Your task to perform on an android device: Open the calendar app, open the side menu, and click the "Day" option Image 0: 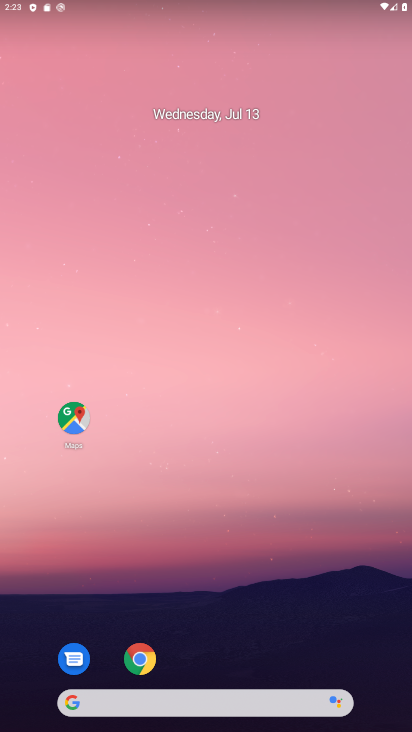
Step 0: drag from (207, 661) to (209, 50)
Your task to perform on an android device: Open the calendar app, open the side menu, and click the "Day" option Image 1: 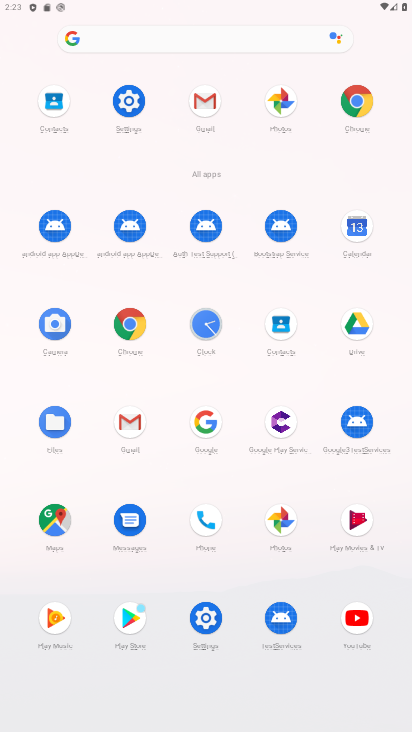
Step 1: click (354, 222)
Your task to perform on an android device: Open the calendar app, open the side menu, and click the "Day" option Image 2: 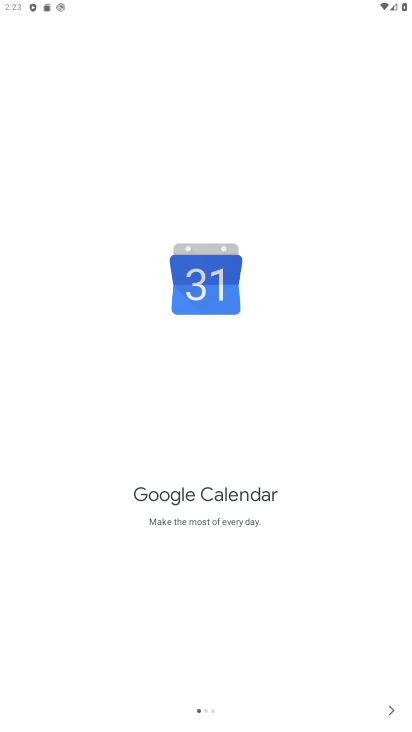
Step 2: click (389, 708)
Your task to perform on an android device: Open the calendar app, open the side menu, and click the "Day" option Image 3: 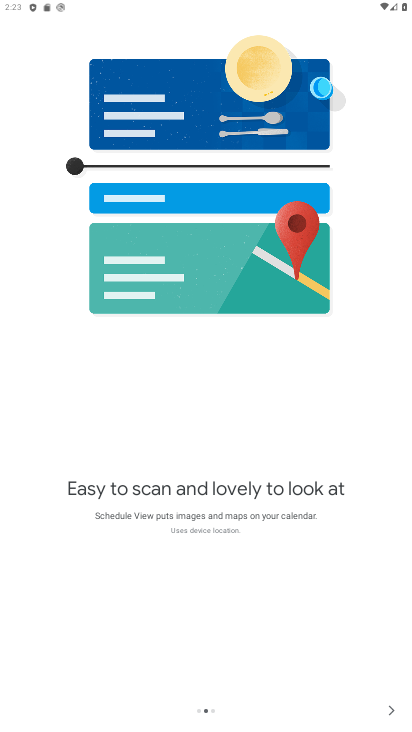
Step 3: click (389, 708)
Your task to perform on an android device: Open the calendar app, open the side menu, and click the "Day" option Image 4: 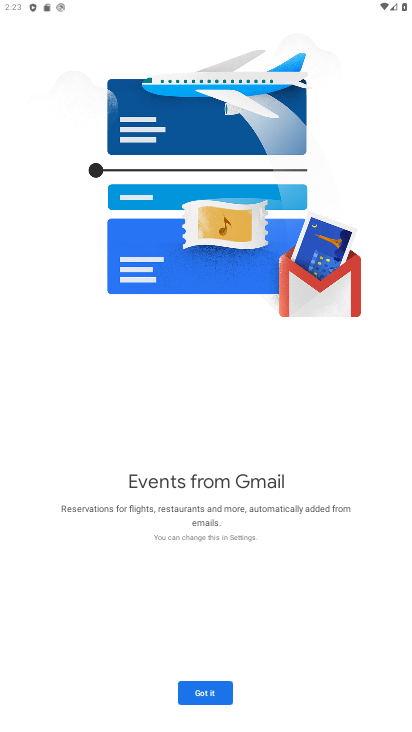
Step 4: click (206, 686)
Your task to perform on an android device: Open the calendar app, open the side menu, and click the "Day" option Image 5: 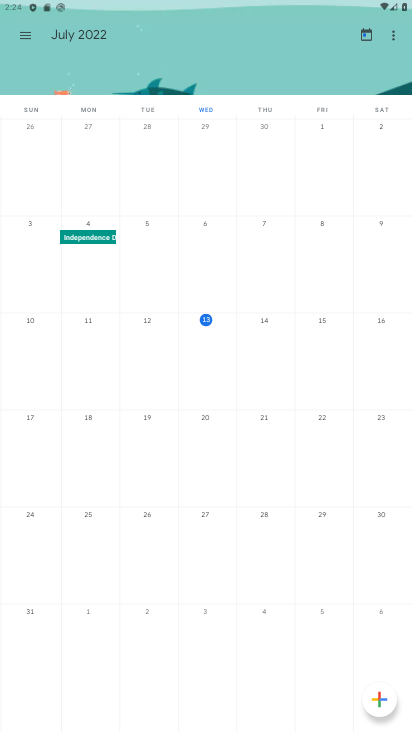
Step 5: click (27, 28)
Your task to perform on an android device: Open the calendar app, open the side menu, and click the "Day" option Image 6: 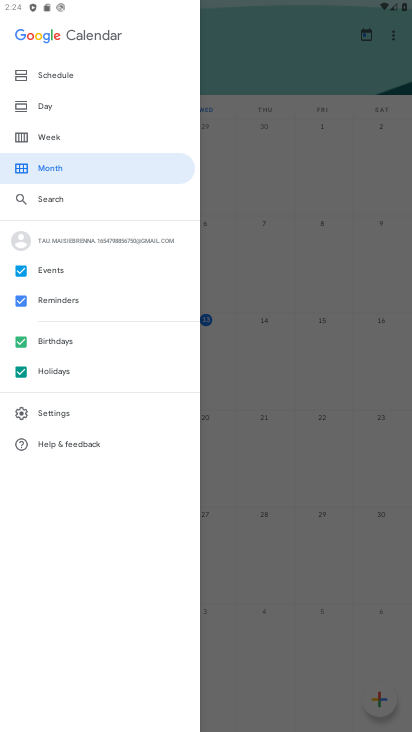
Step 6: click (35, 106)
Your task to perform on an android device: Open the calendar app, open the side menu, and click the "Day" option Image 7: 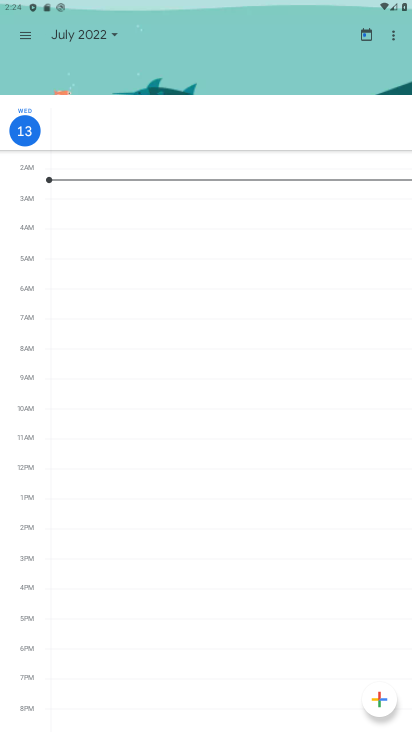
Step 7: task complete